Your task to perform on an android device: Show me popular games on the Play Store Image 0: 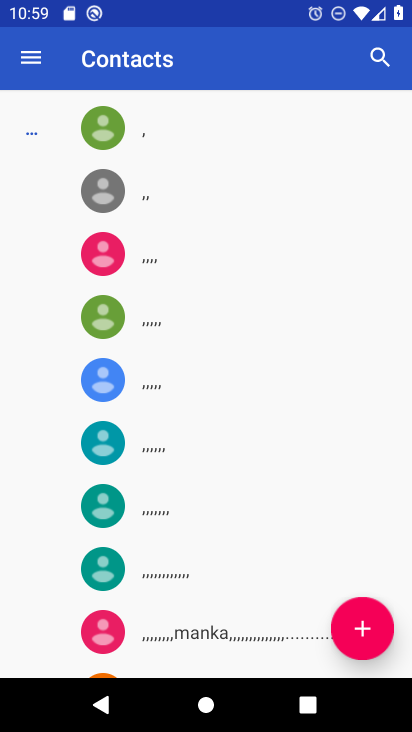
Step 0: press home button
Your task to perform on an android device: Show me popular games on the Play Store Image 1: 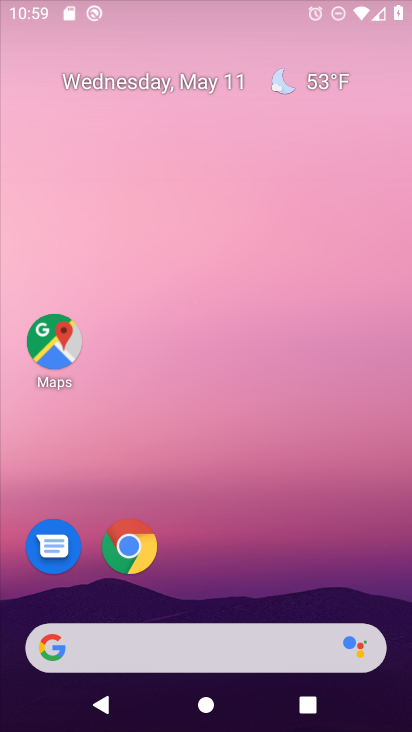
Step 1: drag from (391, 626) to (216, 113)
Your task to perform on an android device: Show me popular games on the Play Store Image 2: 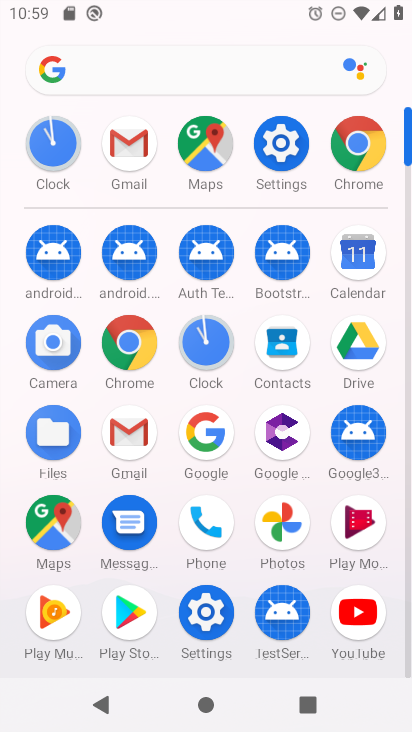
Step 2: click (118, 631)
Your task to perform on an android device: Show me popular games on the Play Store Image 3: 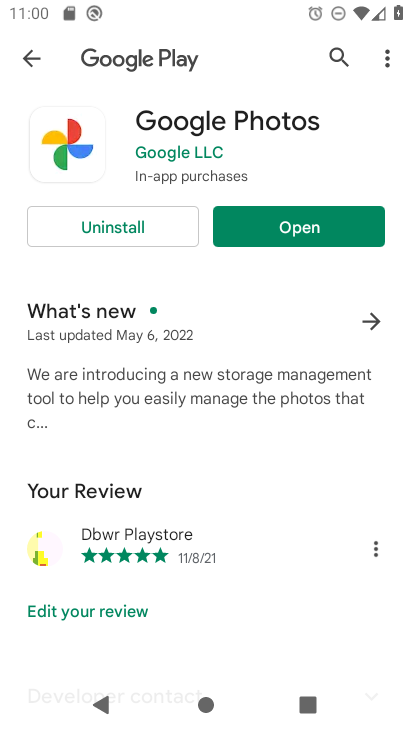
Step 3: press back button
Your task to perform on an android device: Show me popular games on the Play Store Image 4: 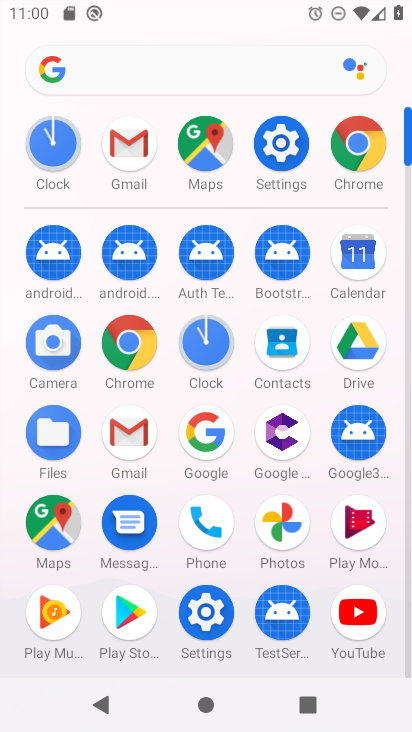
Step 4: click (146, 613)
Your task to perform on an android device: Show me popular games on the Play Store Image 5: 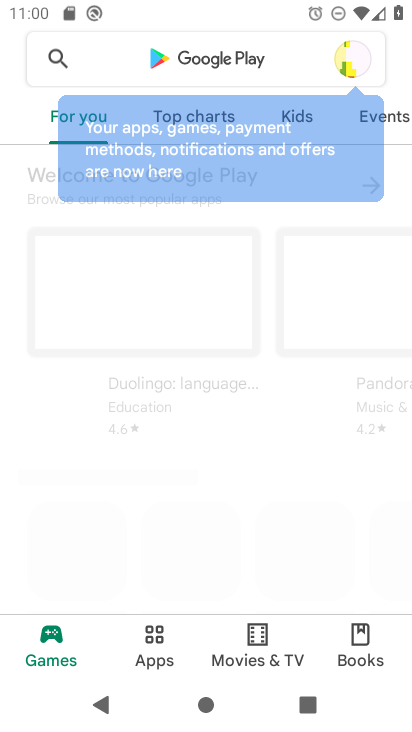
Step 5: task complete